Your task to perform on an android device: open device folders in google photos Image 0: 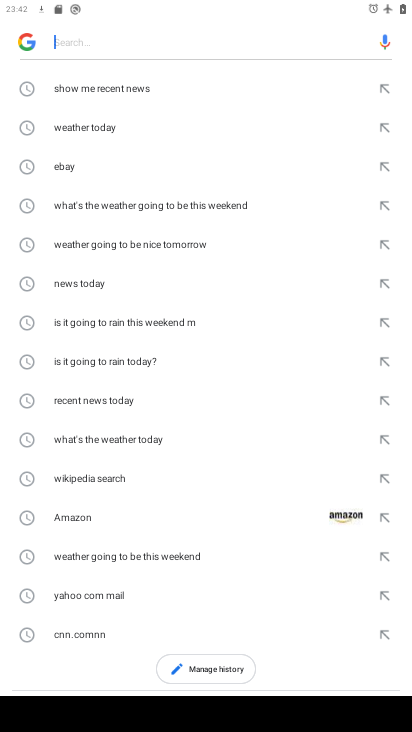
Step 0: press home button
Your task to perform on an android device: open device folders in google photos Image 1: 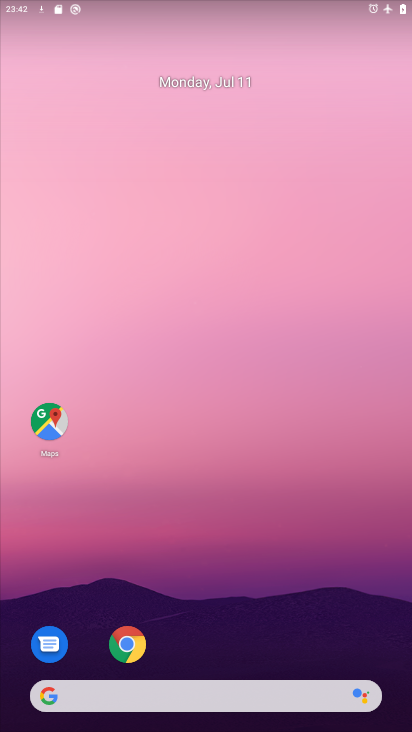
Step 1: drag from (216, 611) to (211, 213)
Your task to perform on an android device: open device folders in google photos Image 2: 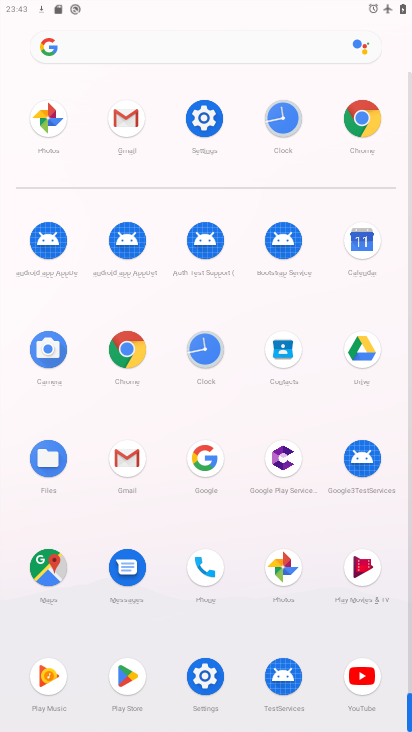
Step 2: click (269, 564)
Your task to perform on an android device: open device folders in google photos Image 3: 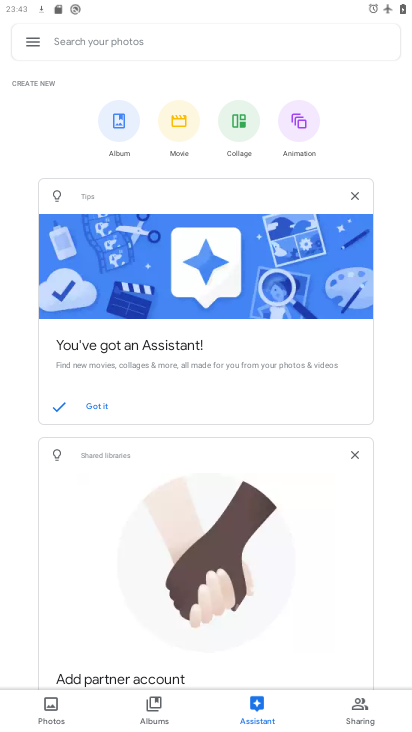
Step 3: click (53, 706)
Your task to perform on an android device: open device folders in google photos Image 4: 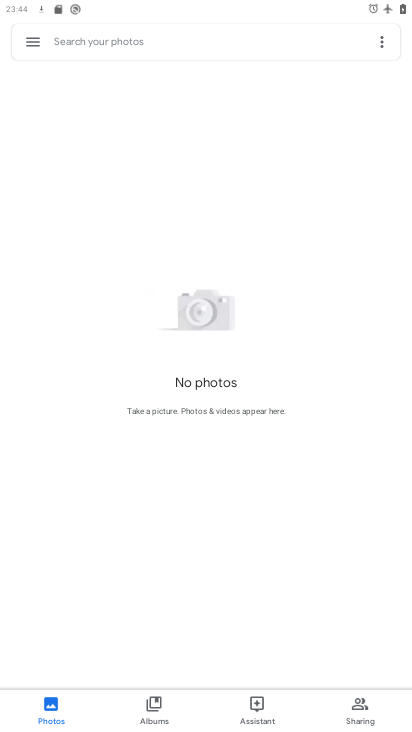
Step 4: task complete